Your task to perform on an android device: Do I have any events today? Image 0: 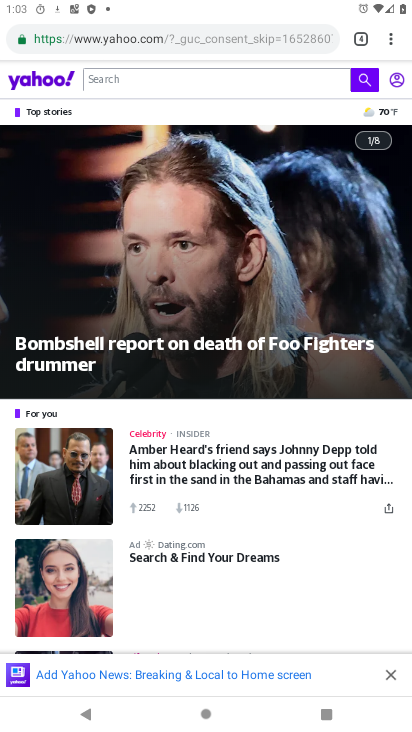
Step 0: press home button
Your task to perform on an android device: Do I have any events today? Image 1: 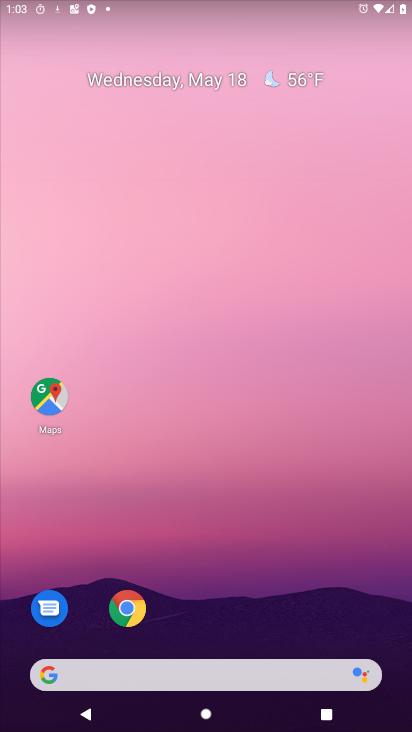
Step 1: drag from (266, 642) to (255, 179)
Your task to perform on an android device: Do I have any events today? Image 2: 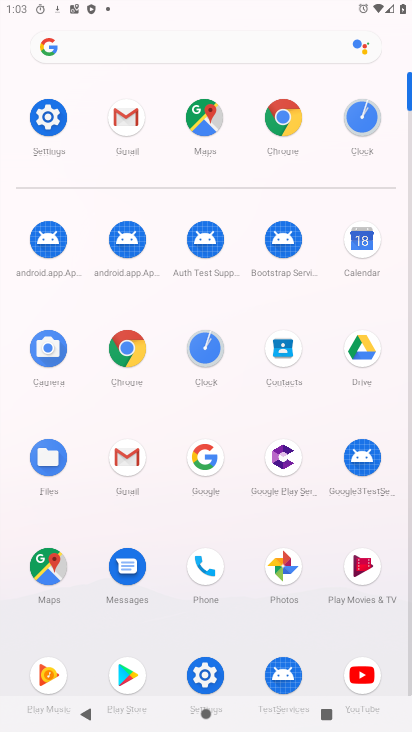
Step 2: click (111, 45)
Your task to perform on an android device: Do I have any events today? Image 3: 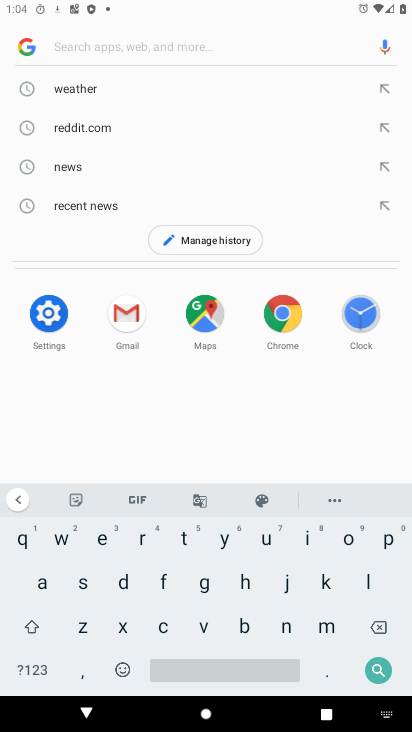
Step 3: click (107, 89)
Your task to perform on an android device: Do I have any events today? Image 4: 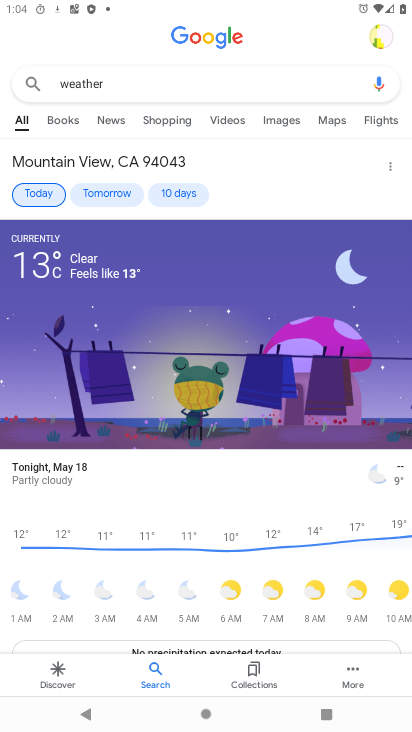
Step 4: task complete